Your task to perform on an android device: Open battery settings Image 0: 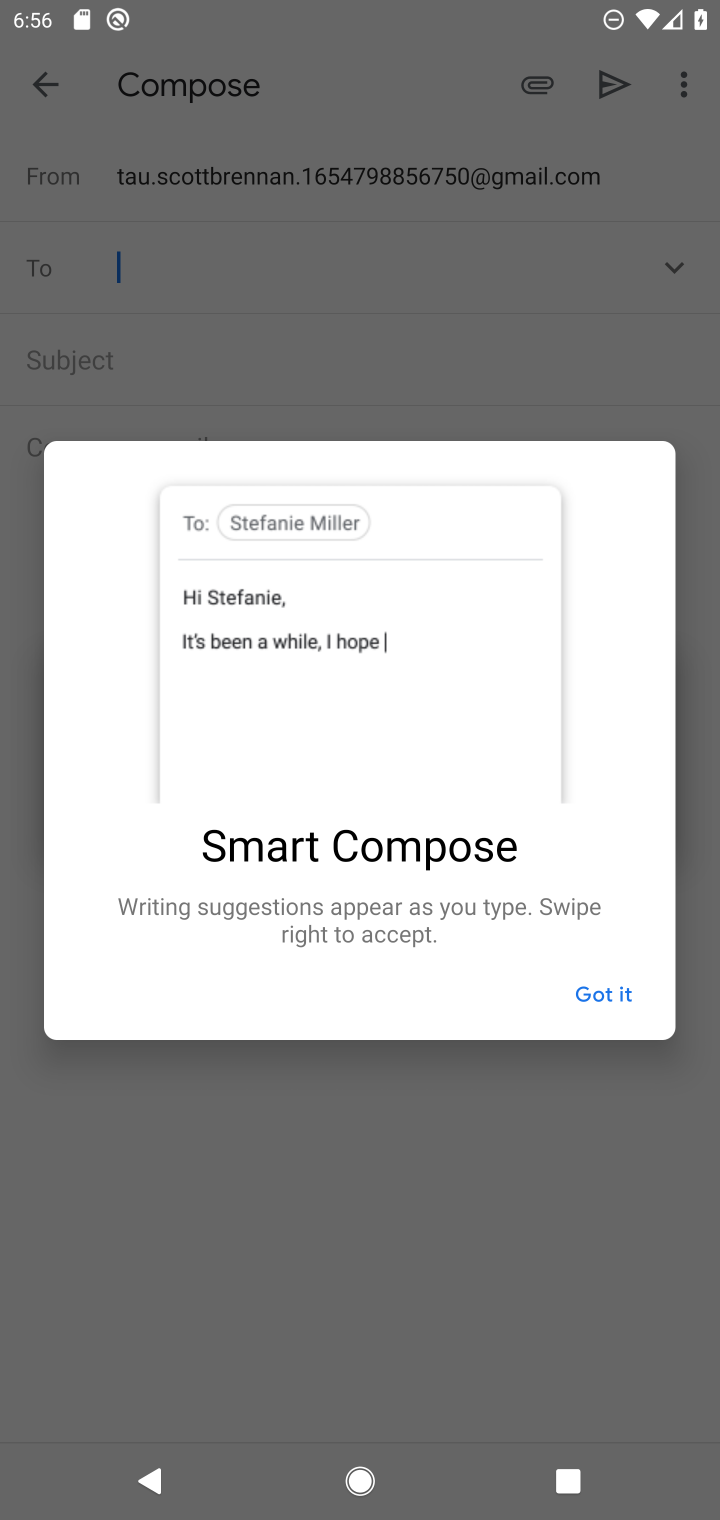
Step 0: press home button
Your task to perform on an android device: Open battery settings Image 1: 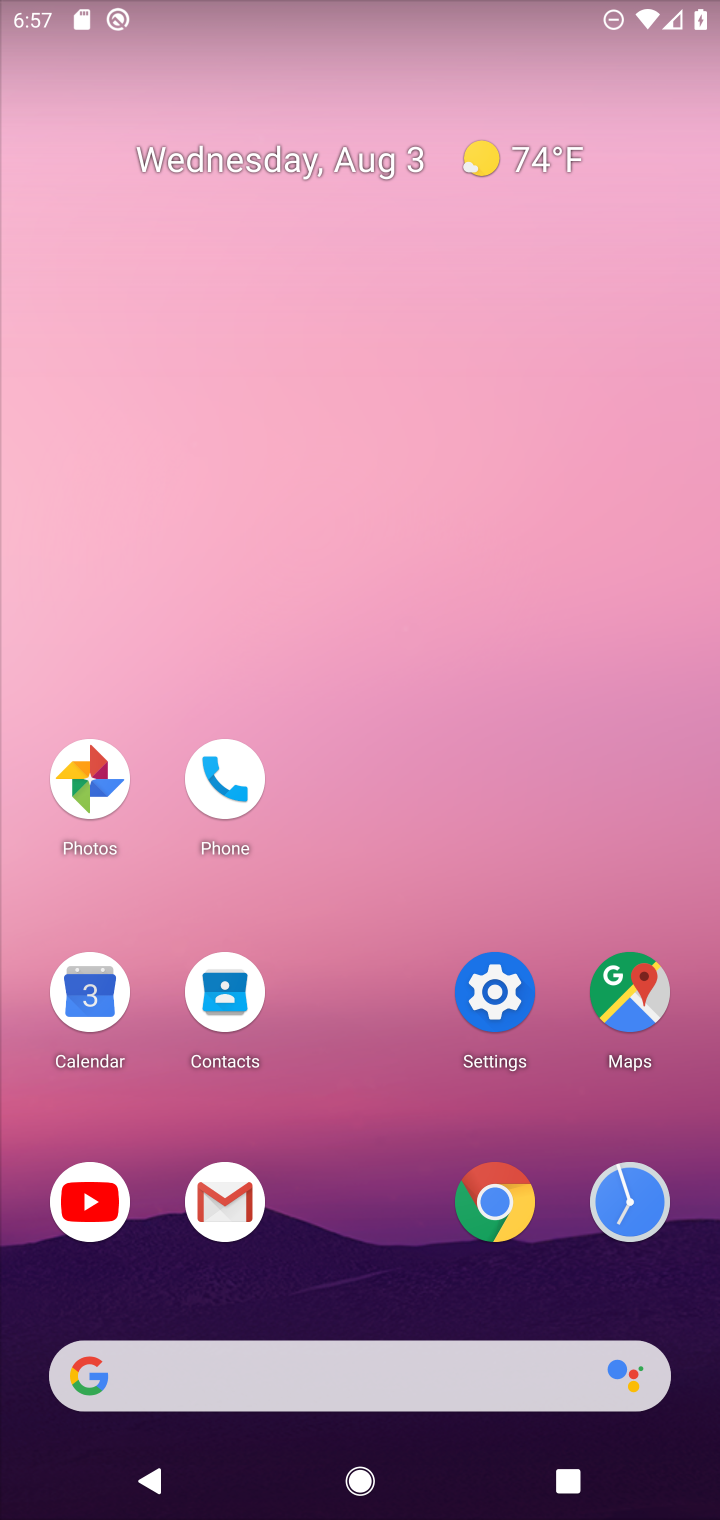
Step 1: click (494, 1001)
Your task to perform on an android device: Open battery settings Image 2: 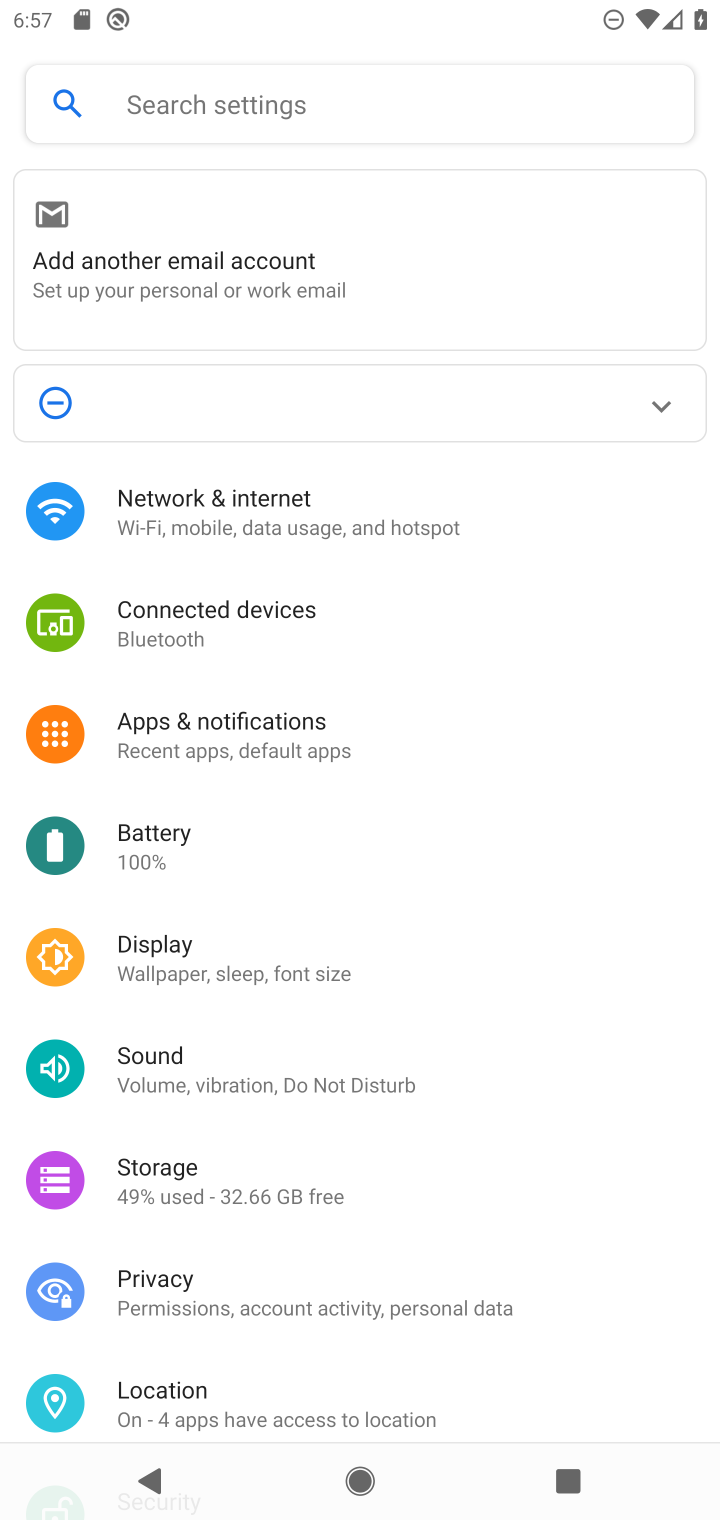
Step 2: click (154, 826)
Your task to perform on an android device: Open battery settings Image 3: 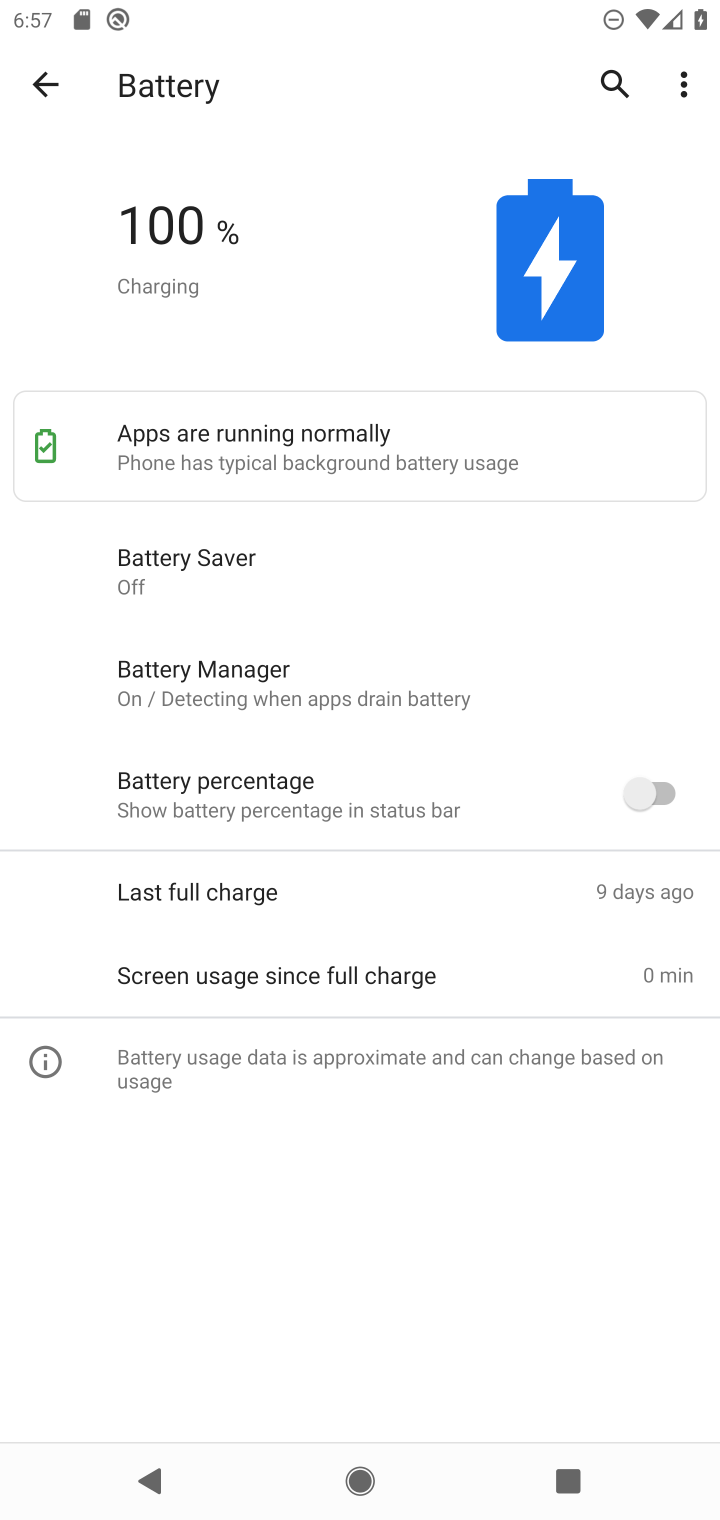
Step 3: task complete